Your task to perform on an android device: Open Maps and search for coffee Image 0: 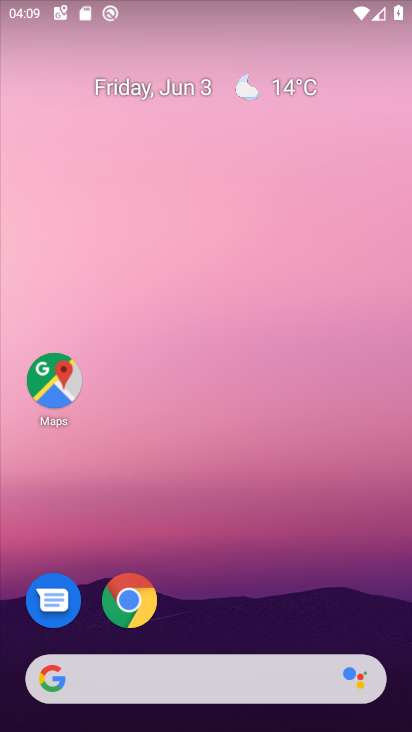
Step 0: click (62, 389)
Your task to perform on an android device: Open Maps and search for coffee Image 1: 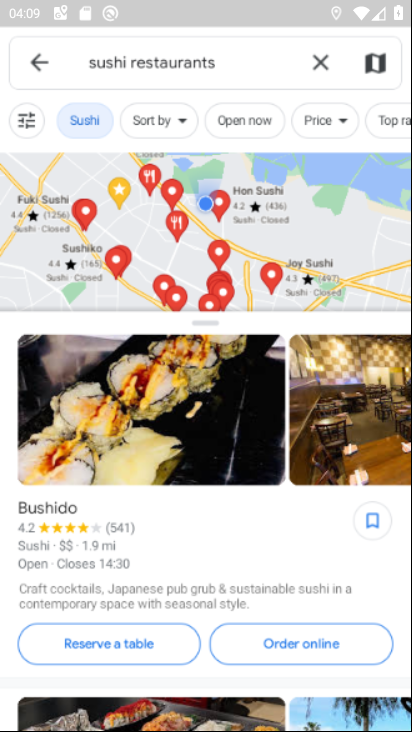
Step 1: click (255, 66)
Your task to perform on an android device: Open Maps and search for coffee Image 2: 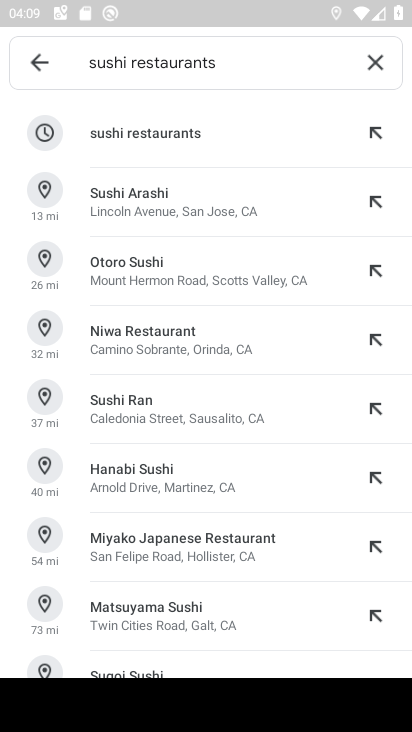
Step 2: click (383, 62)
Your task to perform on an android device: Open Maps and search for coffee Image 3: 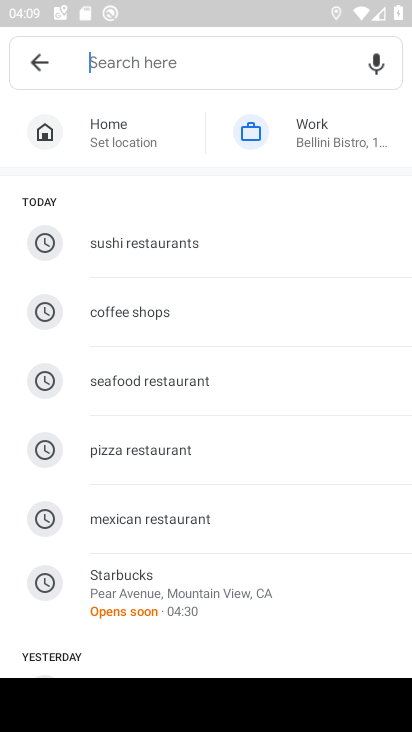
Step 3: type "coffee"
Your task to perform on an android device: Open Maps and search for coffee Image 4: 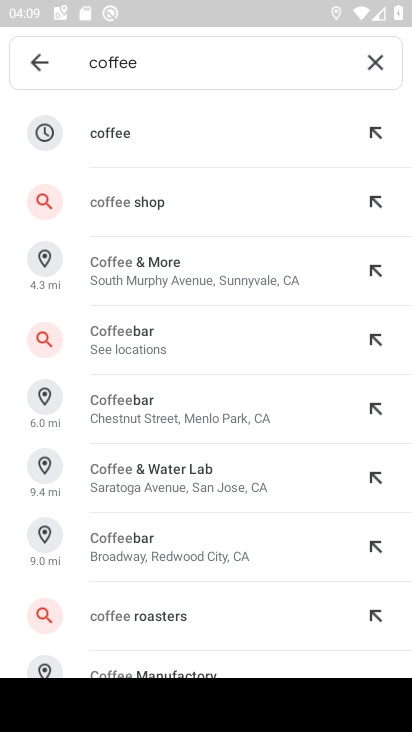
Step 4: click (94, 128)
Your task to perform on an android device: Open Maps and search for coffee Image 5: 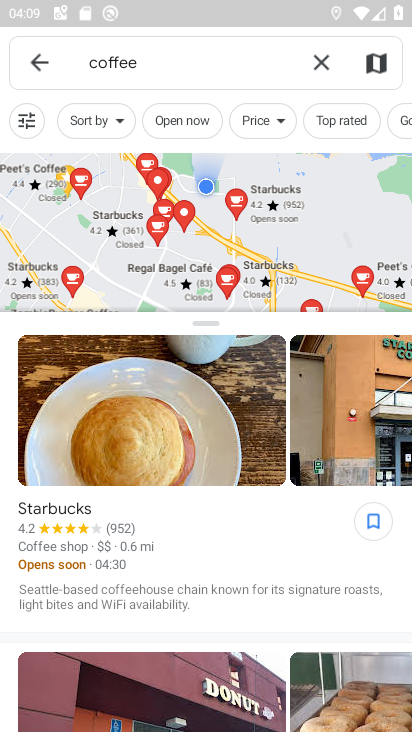
Step 5: task complete